Your task to perform on an android device: change the upload size in google photos Image 0: 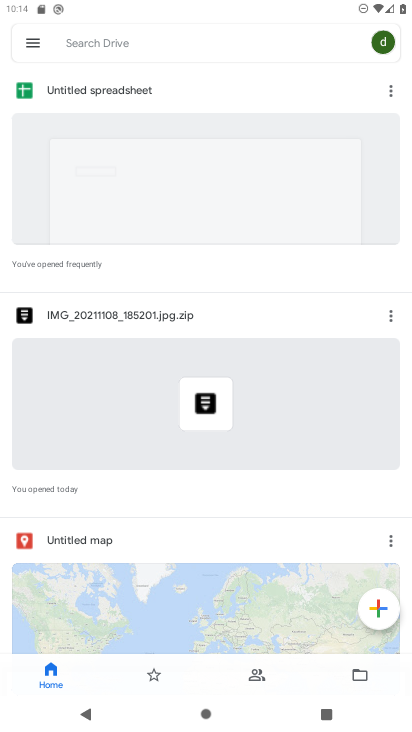
Step 0: press home button
Your task to perform on an android device: change the upload size in google photos Image 1: 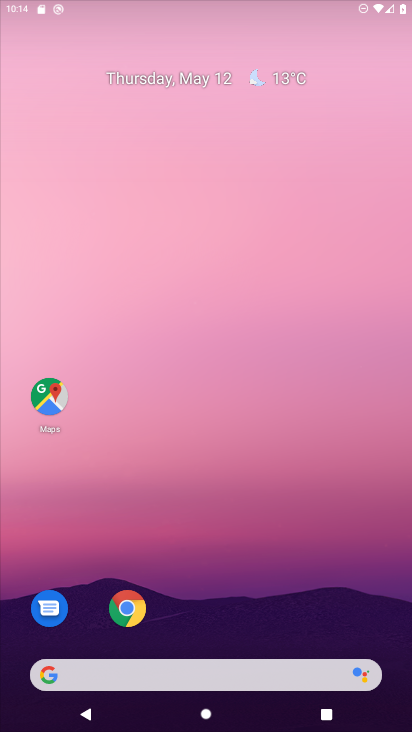
Step 1: drag from (226, 559) to (269, 96)
Your task to perform on an android device: change the upload size in google photos Image 2: 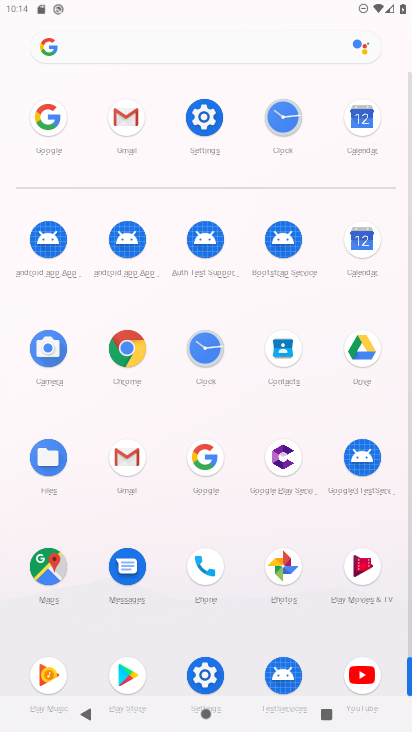
Step 2: click (275, 560)
Your task to perform on an android device: change the upload size in google photos Image 3: 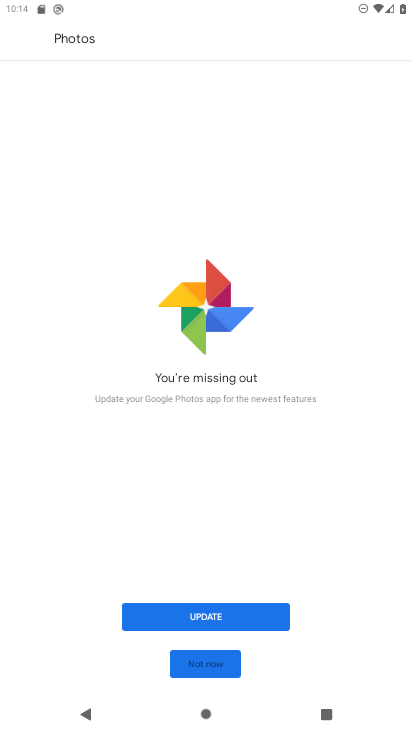
Step 3: click (198, 637)
Your task to perform on an android device: change the upload size in google photos Image 4: 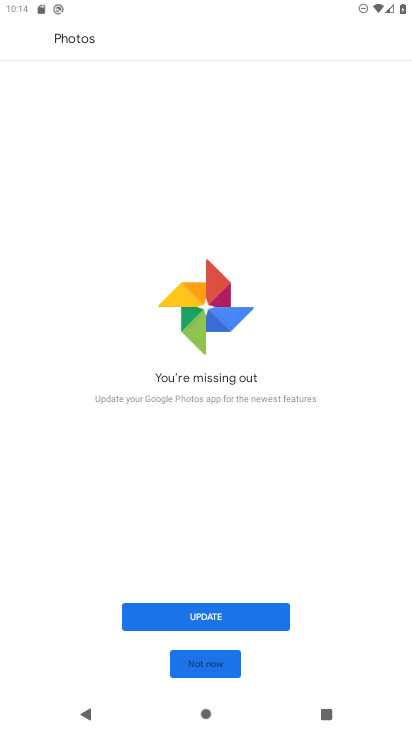
Step 4: click (194, 624)
Your task to perform on an android device: change the upload size in google photos Image 5: 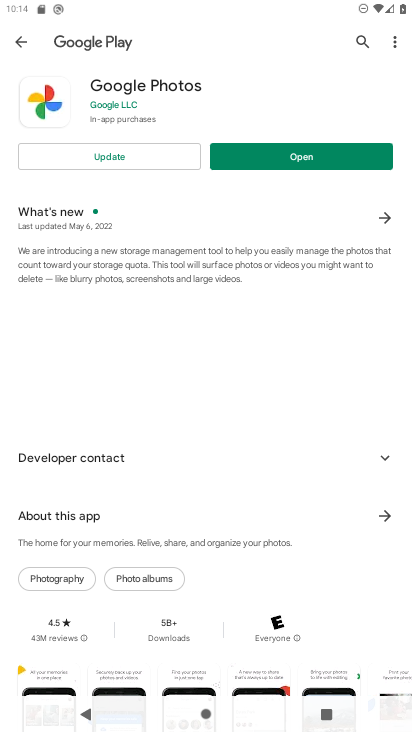
Step 5: click (125, 157)
Your task to perform on an android device: change the upload size in google photos Image 6: 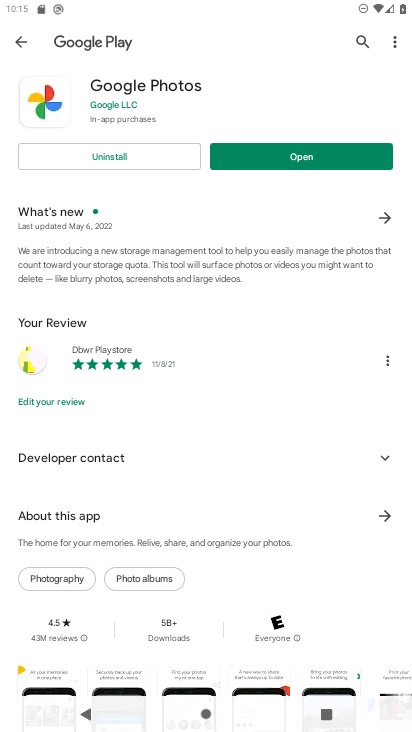
Step 6: click (283, 161)
Your task to perform on an android device: change the upload size in google photos Image 7: 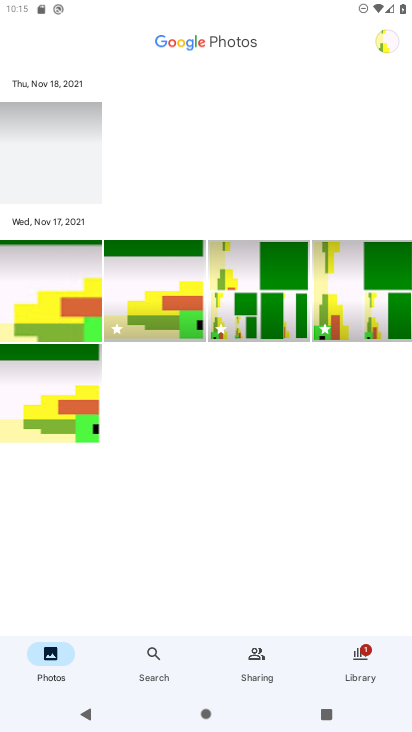
Step 7: click (388, 35)
Your task to perform on an android device: change the upload size in google photos Image 8: 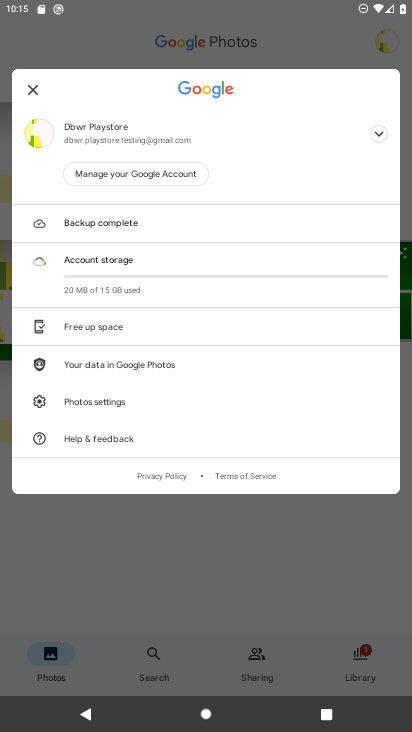
Step 8: click (120, 407)
Your task to perform on an android device: change the upload size in google photos Image 9: 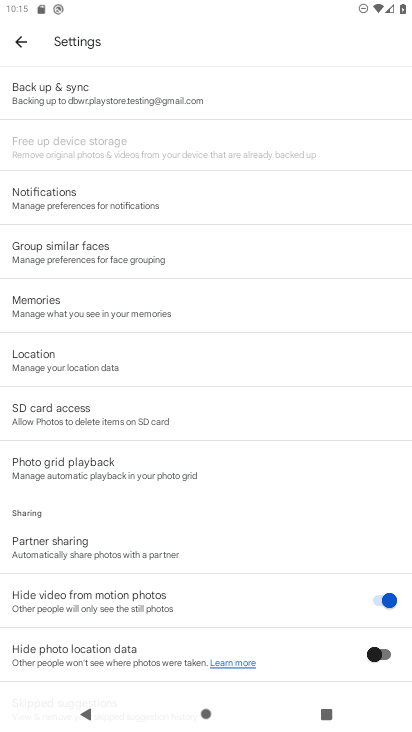
Step 9: click (112, 92)
Your task to perform on an android device: change the upload size in google photos Image 10: 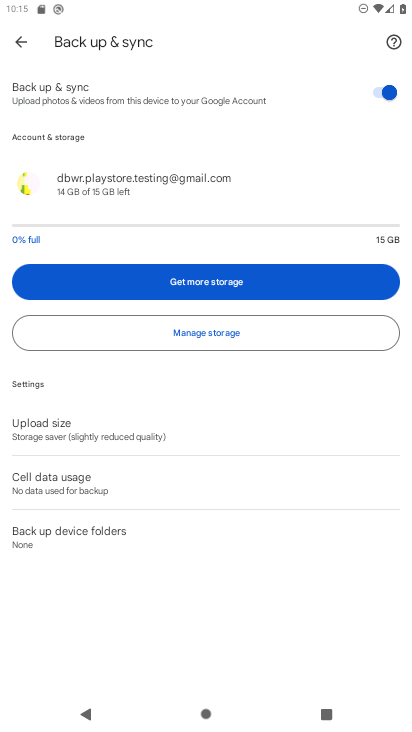
Step 10: click (92, 445)
Your task to perform on an android device: change the upload size in google photos Image 11: 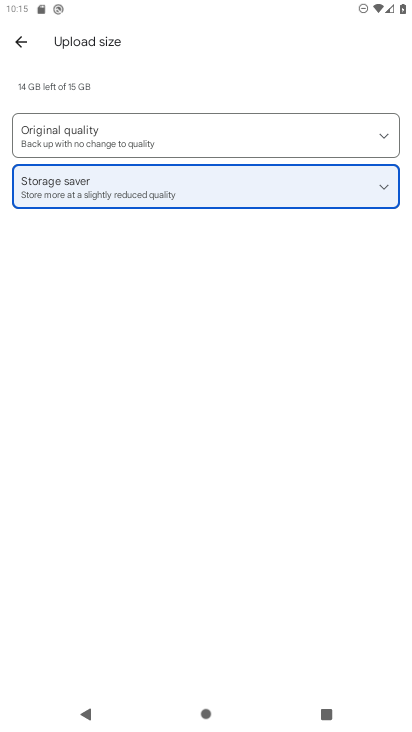
Step 11: click (77, 142)
Your task to perform on an android device: change the upload size in google photos Image 12: 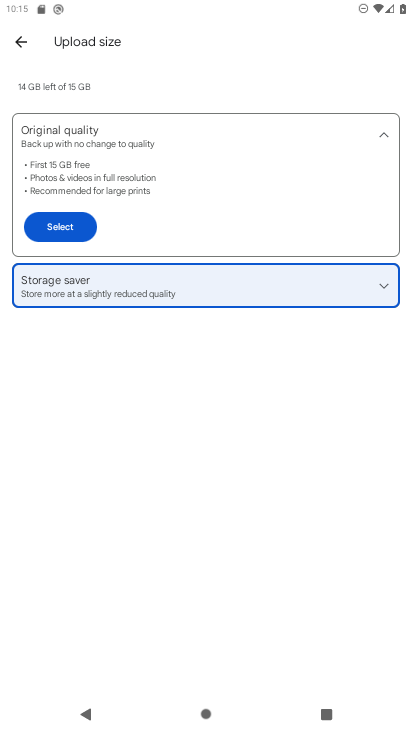
Step 12: click (55, 212)
Your task to perform on an android device: change the upload size in google photos Image 13: 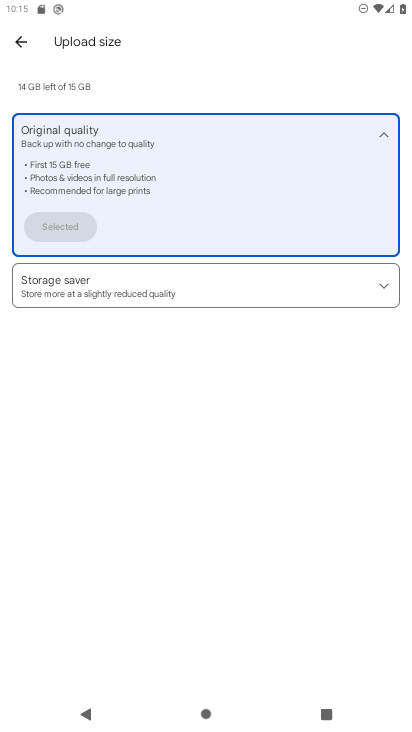
Step 13: task complete